Your task to perform on an android device: delete a single message in the gmail app Image 0: 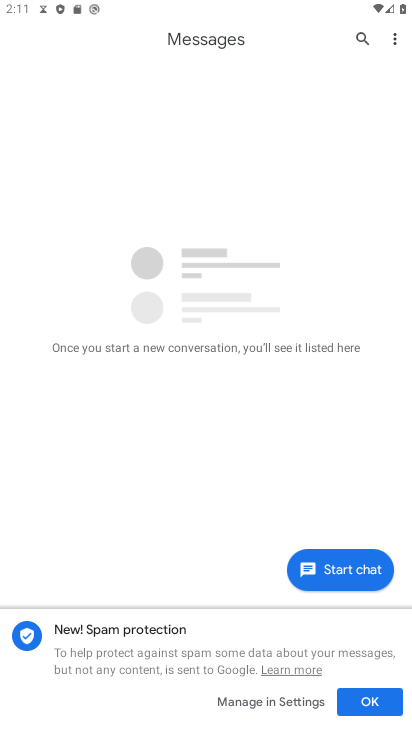
Step 0: press home button
Your task to perform on an android device: delete a single message in the gmail app Image 1: 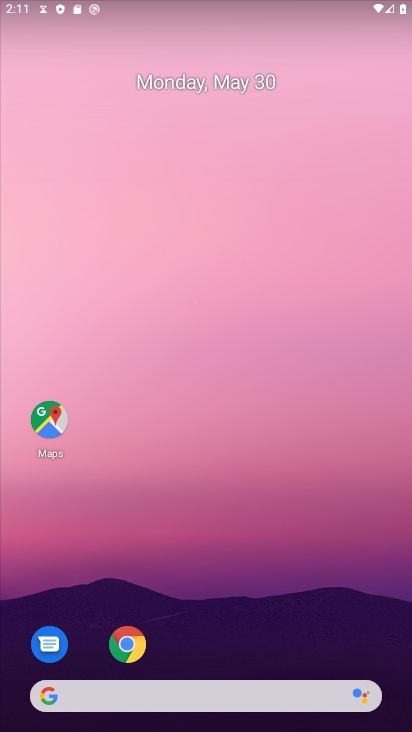
Step 1: drag from (300, 559) to (263, 143)
Your task to perform on an android device: delete a single message in the gmail app Image 2: 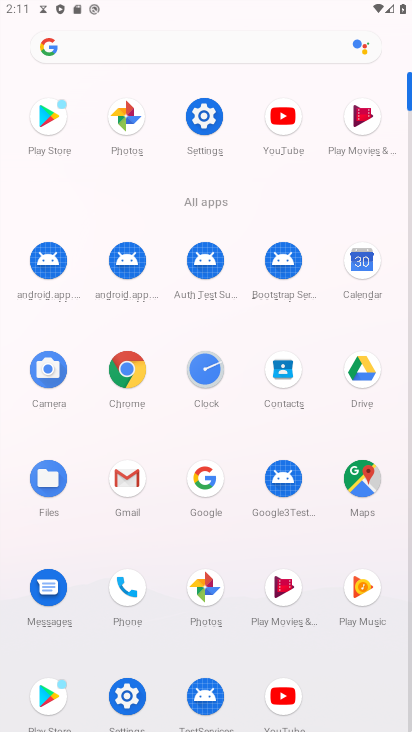
Step 2: click (126, 483)
Your task to perform on an android device: delete a single message in the gmail app Image 3: 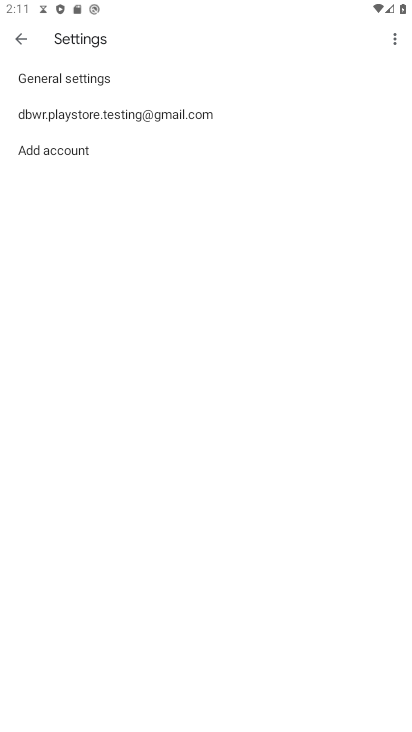
Step 3: click (80, 112)
Your task to perform on an android device: delete a single message in the gmail app Image 4: 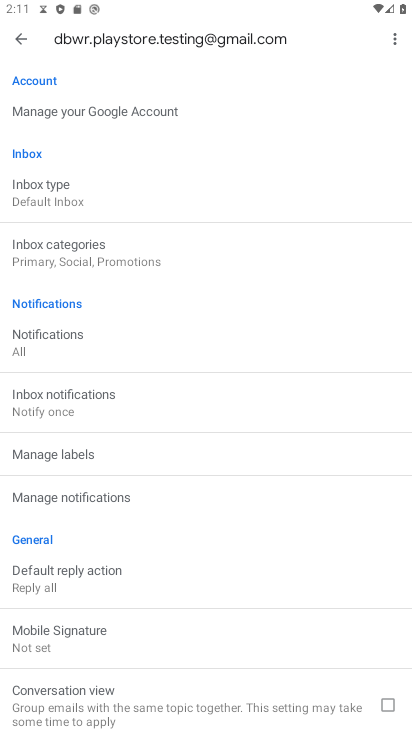
Step 4: click (12, 43)
Your task to perform on an android device: delete a single message in the gmail app Image 5: 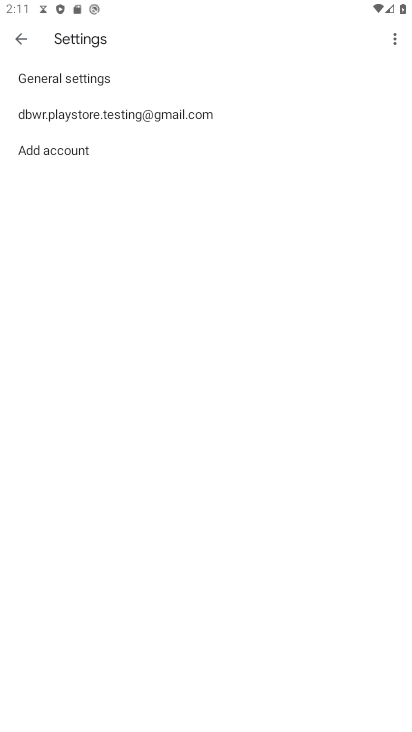
Step 5: click (15, 43)
Your task to perform on an android device: delete a single message in the gmail app Image 6: 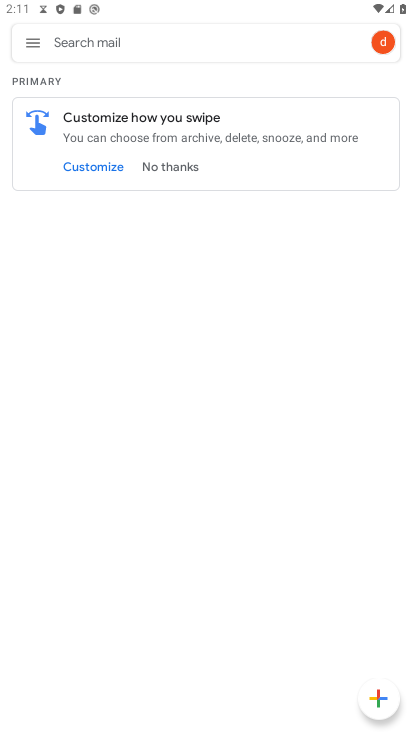
Step 6: click (28, 50)
Your task to perform on an android device: delete a single message in the gmail app Image 7: 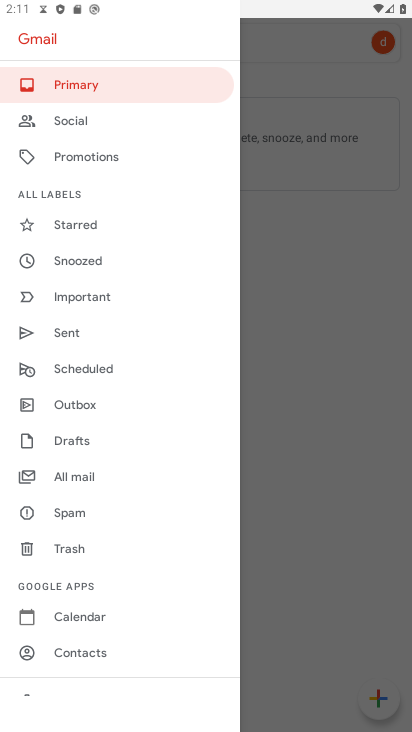
Step 7: click (83, 458)
Your task to perform on an android device: delete a single message in the gmail app Image 8: 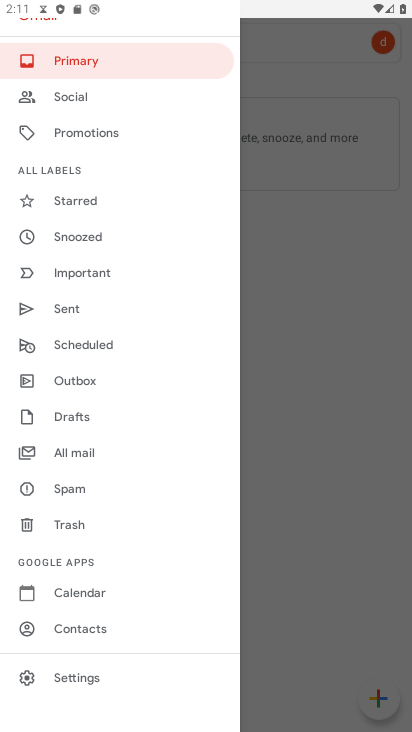
Step 8: click (71, 453)
Your task to perform on an android device: delete a single message in the gmail app Image 9: 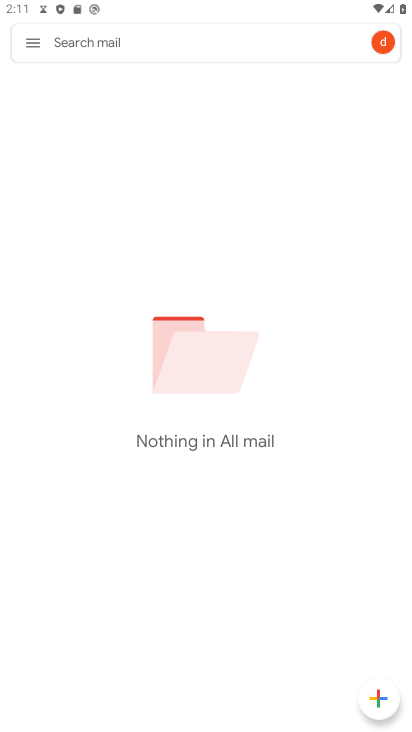
Step 9: click (30, 44)
Your task to perform on an android device: delete a single message in the gmail app Image 10: 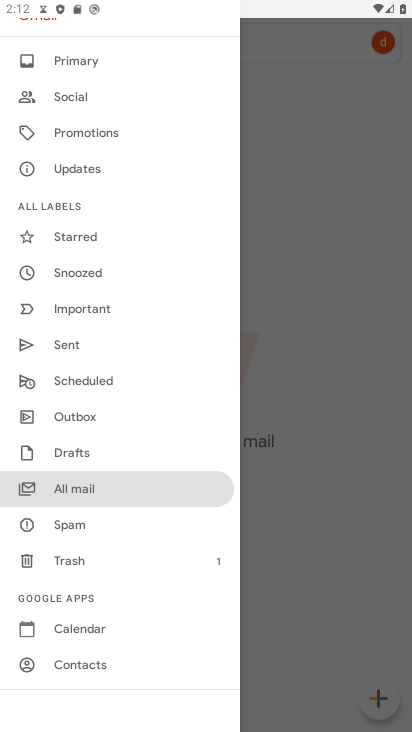
Step 10: click (94, 138)
Your task to perform on an android device: delete a single message in the gmail app Image 11: 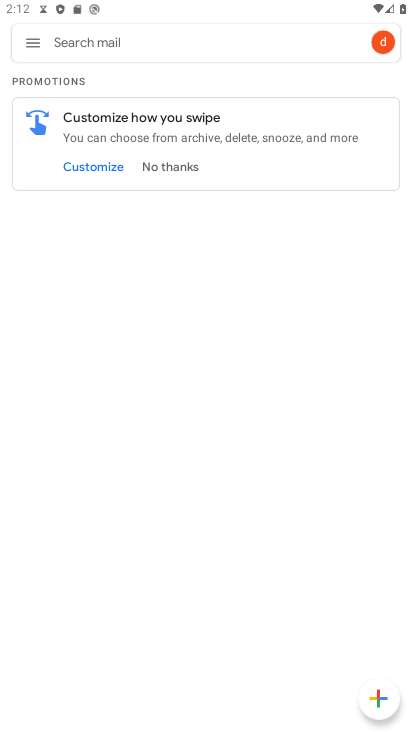
Step 11: click (158, 171)
Your task to perform on an android device: delete a single message in the gmail app Image 12: 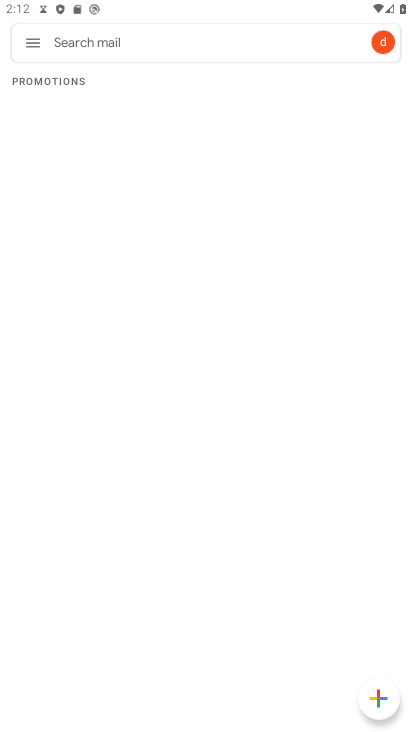
Step 12: task complete